Your task to perform on an android device: Open the stopwatch Image 0: 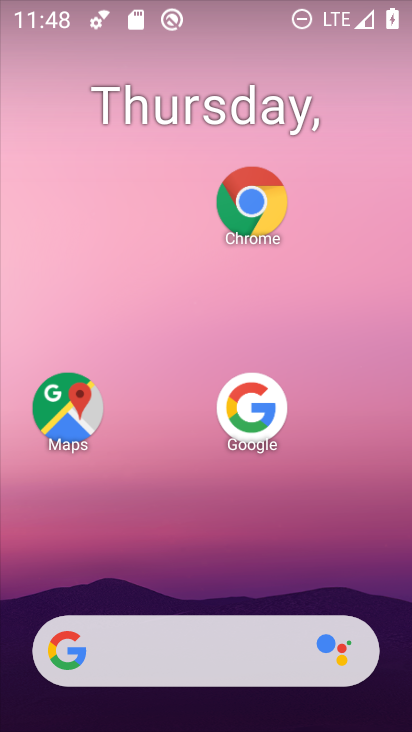
Step 0: drag from (230, 611) to (278, 23)
Your task to perform on an android device: Open the stopwatch Image 1: 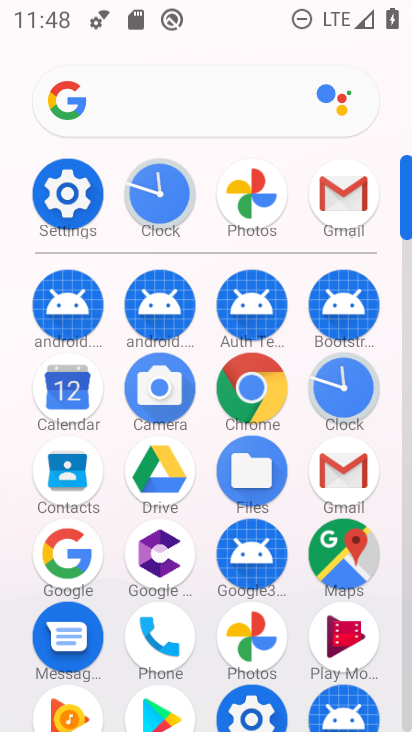
Step 1: click (350, 386)
Your task to perform on an android device: Open the stopwatch Image 2: 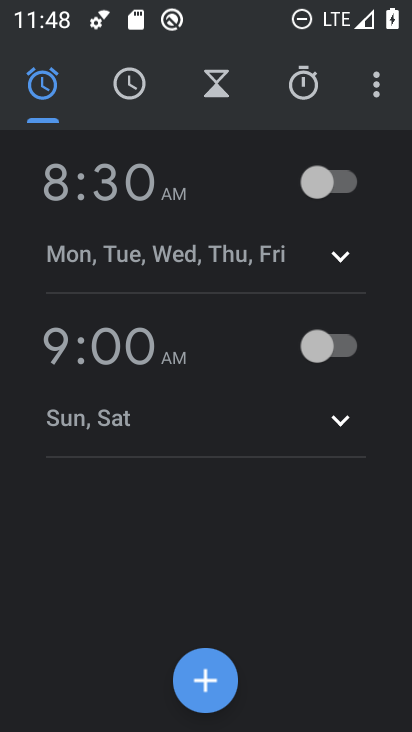
Step 2: click (293, 79)
Your task to perform on an android device: Open the stopwatch Image 3: 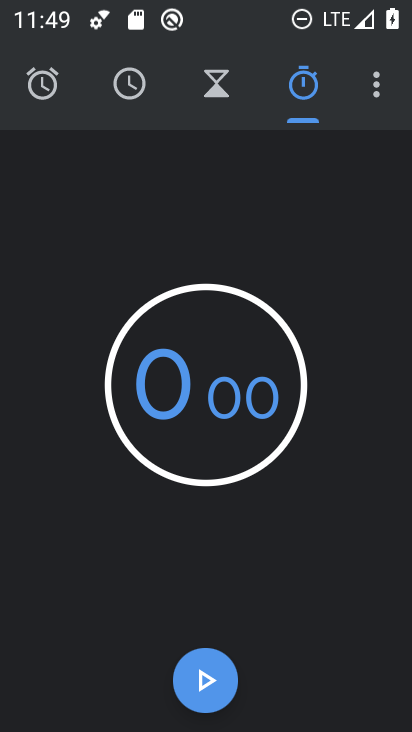
Step 3: task complete